Your task to perform on an android device: open chrome privacy settings Image 0: 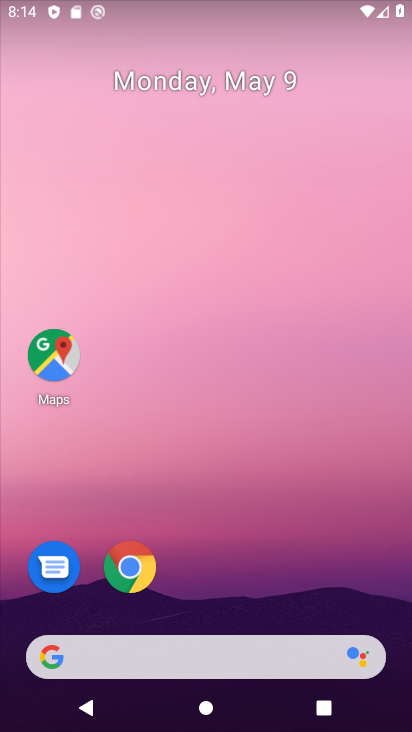
Step 0: drag from (339, 587) to (308, 167)
Your task to perform on an android device: open chrome privacy settings Image 1: 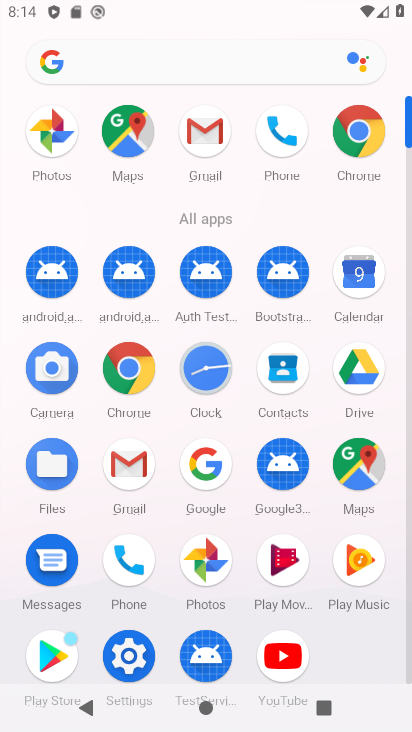
Step 1: click (374, 113)
Your task to perform on an android device: open chrome privacy settings Image 2: 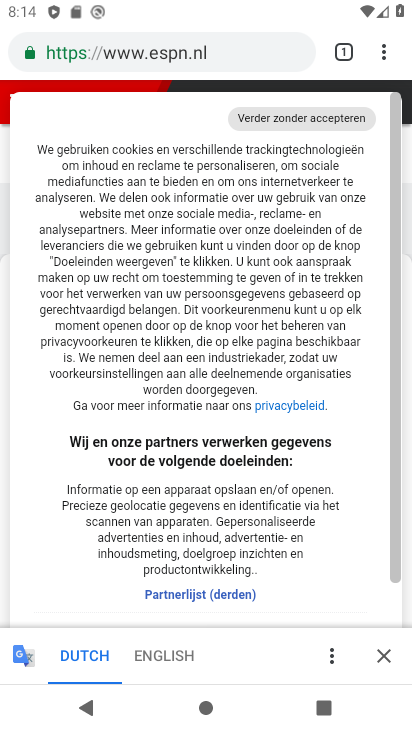
Step 2: drag from (385, 58) to (259, 604)
Your task to perform on an android device: open chrome privacy settings Image 3: 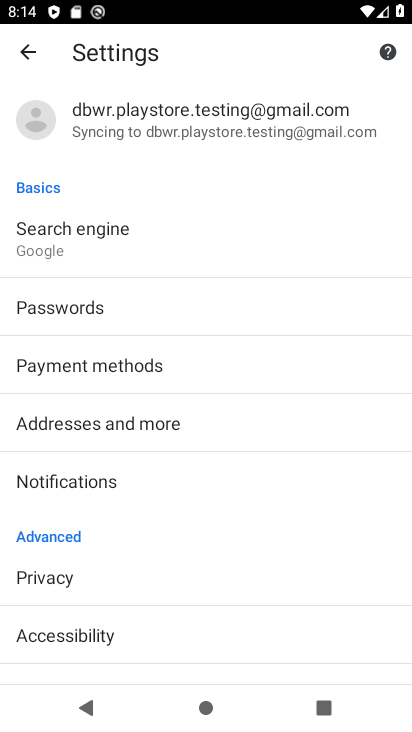
Step 3: click (138, 579)
Your task to perform on an android device: open chrome privacy settings Image 4: 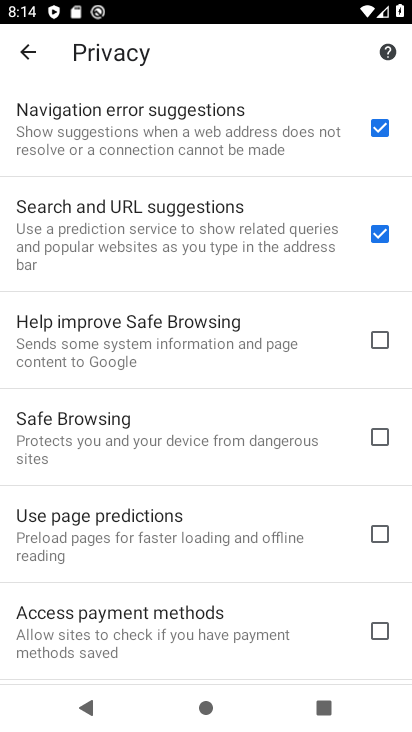
Step 4: task complete